Your task to perform on an android device: Open the phone app and click the voicemail tab. Image 0: 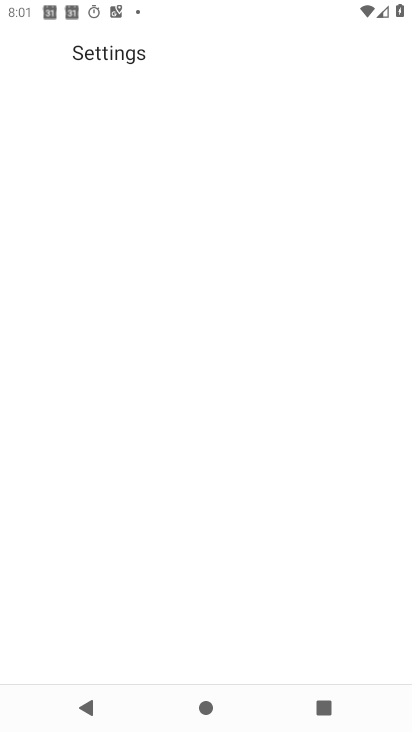
Step 0: click (146, 579)
Your task to perform on an android device: Open the phone app and click the voicemail tab. Image 1: 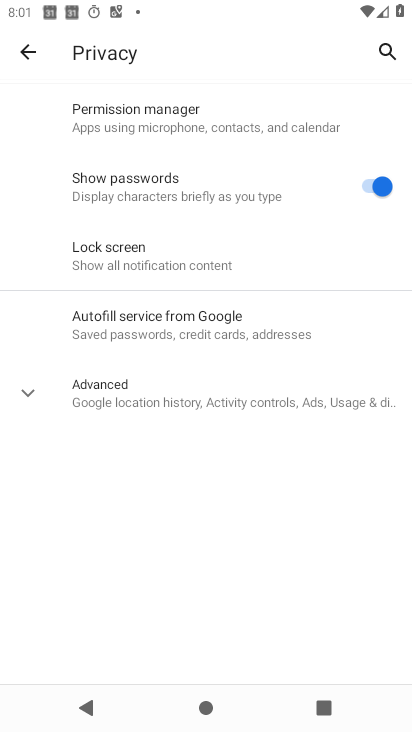
Step 1: press home button
Your task to perform on an android device: Open the phone app and click the voicemail tab. Image 2: 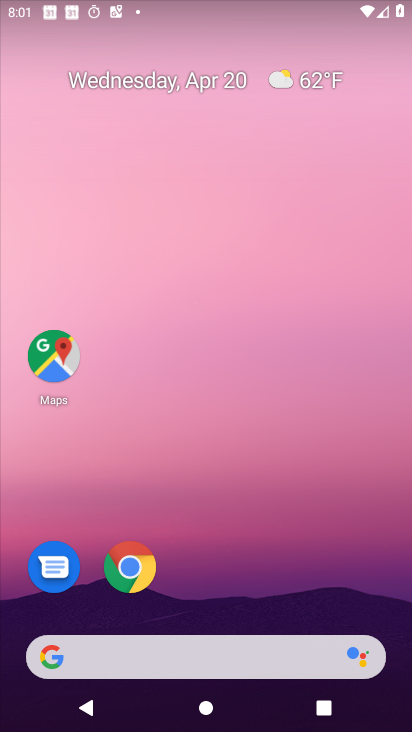
Step 2: drag from (196, 646) to (189, 234)
Your task to perform on an android device: Open the phone app and click the voicemail tab. Image 3: 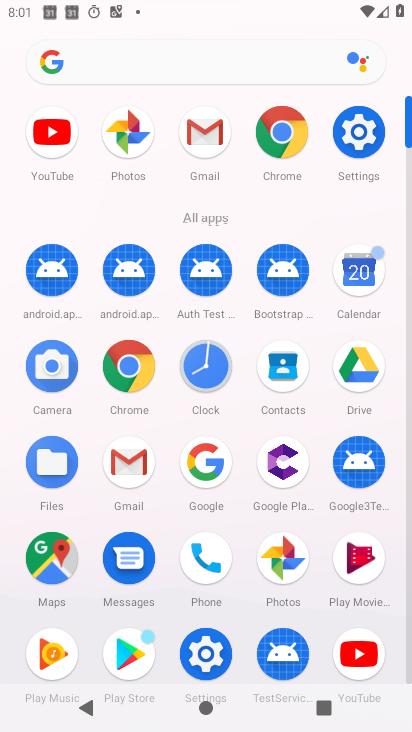
Step 3: click (207, 569)
Your task to perform on an android device: Open the phone app and click the voicemail tab. Image 4: 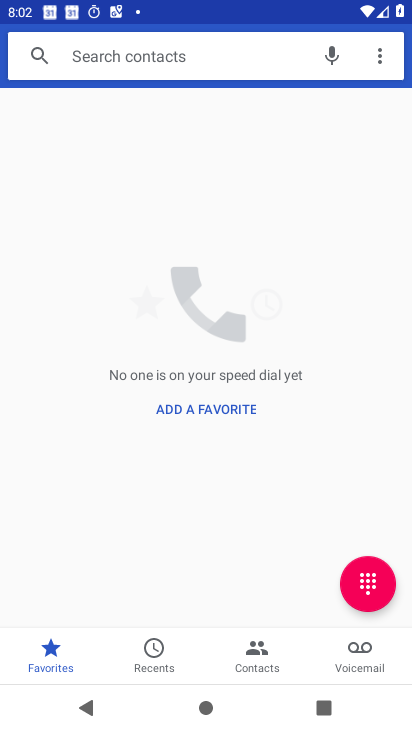
Step 4: click (351, 652)
Your task to perform on an android device: Open the phone app and click the voicemail tab. Image 5: 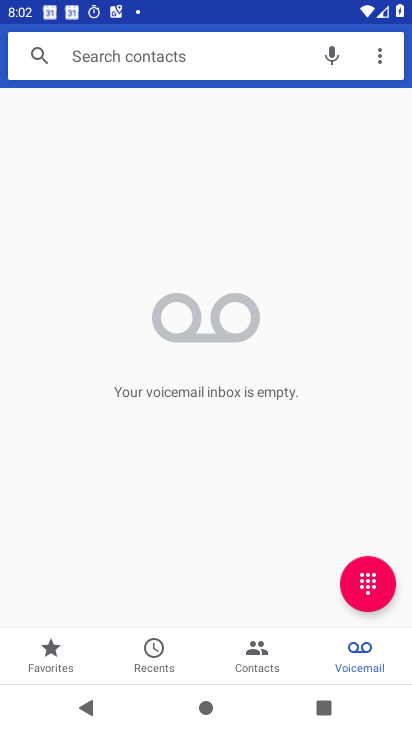
Step 5: task complete